Your task to perform on an android device: turn on translation in the chrome app Image 0: 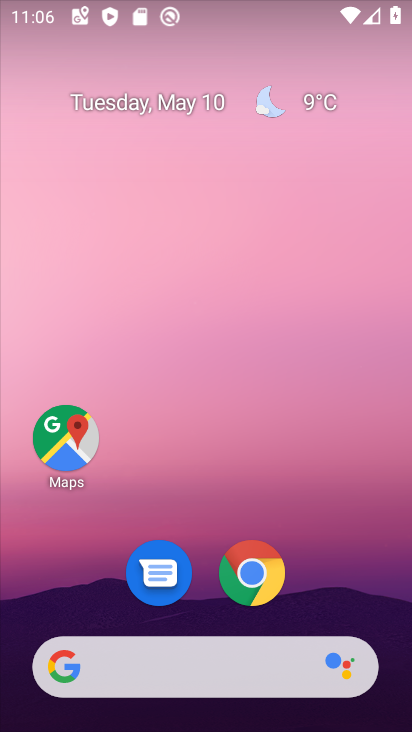
Step 0: click (246, 581)
Your task to perform on an android device: turn on translation in the chrome app Image 1: 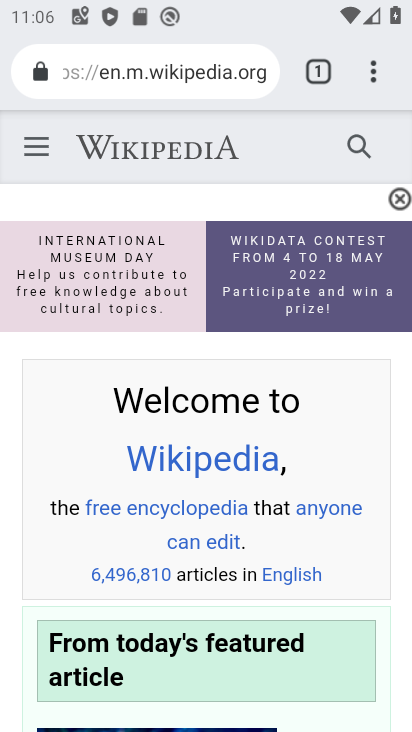
Step 1: click (373, 77)
Your task to perform on an android device: turn on translation in the chrome app Image 2: 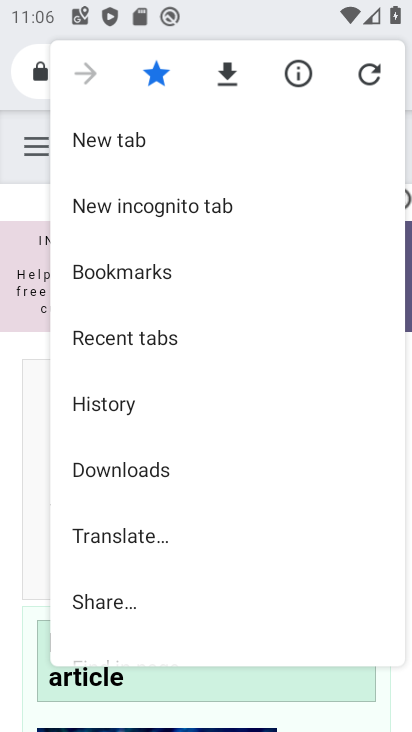
Step 2: drag from (160, 604) to (156, 315)
Your task to perform on an android device: turn on translation in the chrome app Image 3: 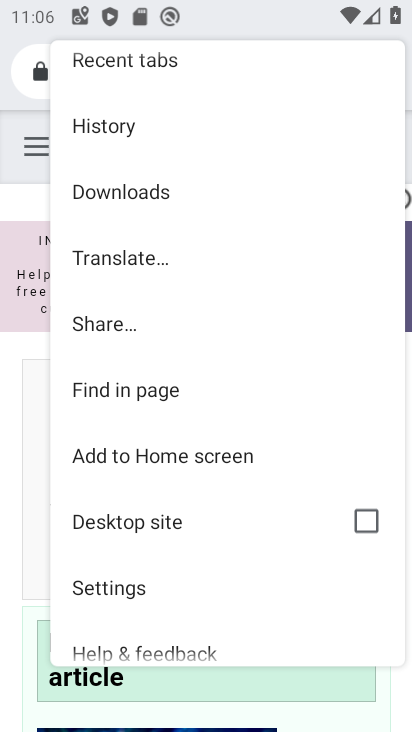
Step 3: click (123, 586)
Your task to perform on an android device: turn on translation in the chrome app Image 4: 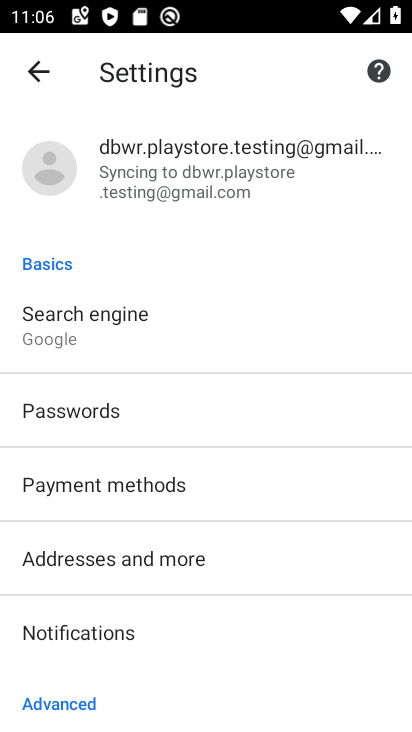
Step 4: drag from (137, 679) to (166, 252)
Your task to perform on an android device: turn on translation in the chrome app Image 5: 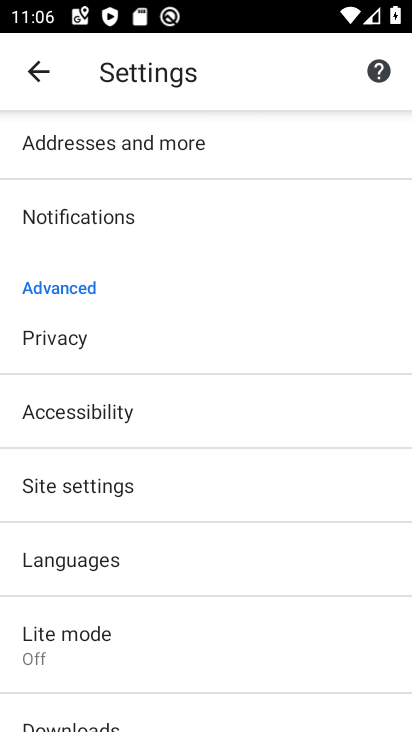
Step 5: click (75, 563)
Your task to perform on an android device: turn on translation in the chrome app Image 6: 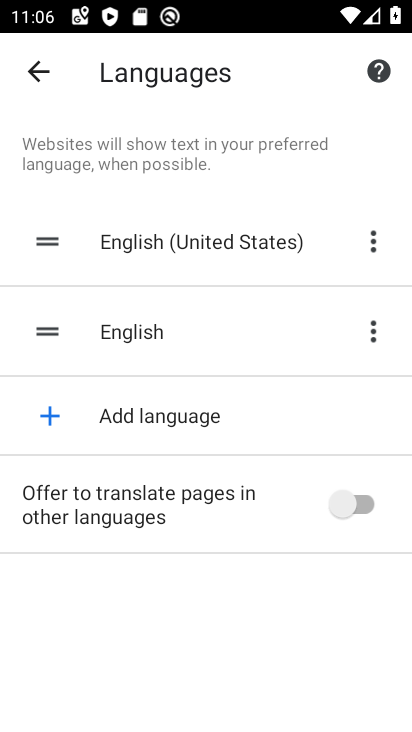
Step 6: click (362, 504)
Your task to perform on an android device: turn on translation in the chrome app Image 7: 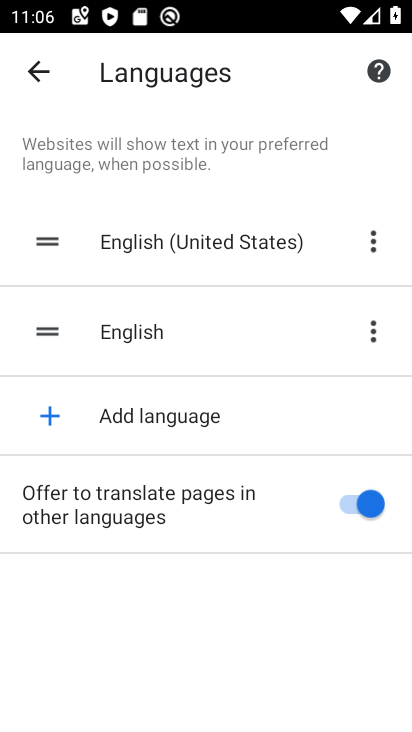
Step 7: task complete